Your task to perform on an android device: Go to sound settings Image 0: 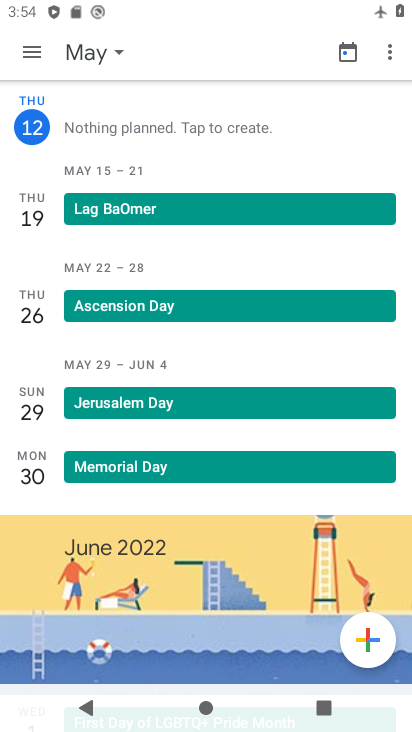
Step 0: press home button
Your task to perform on an android device: Go to sound settings Image 1: 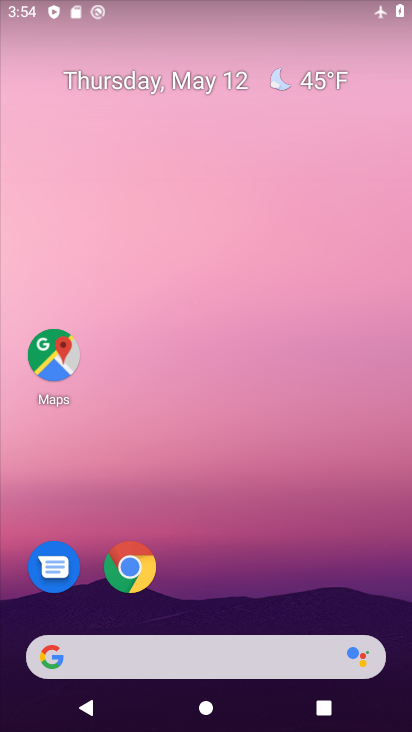
Step 1: drag from (206, 580) to (263, 77)
Your task to perform on an android device: Go to sound settings Image 2: 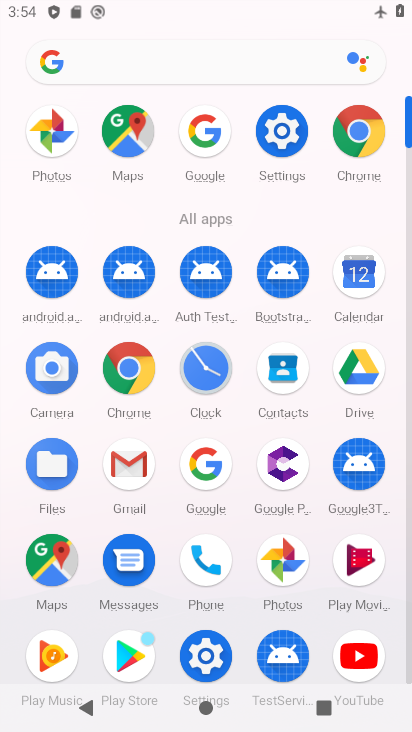
Step 2: click (260, 122)
Your task to perform on an android device: Go to sound settings Image 3: 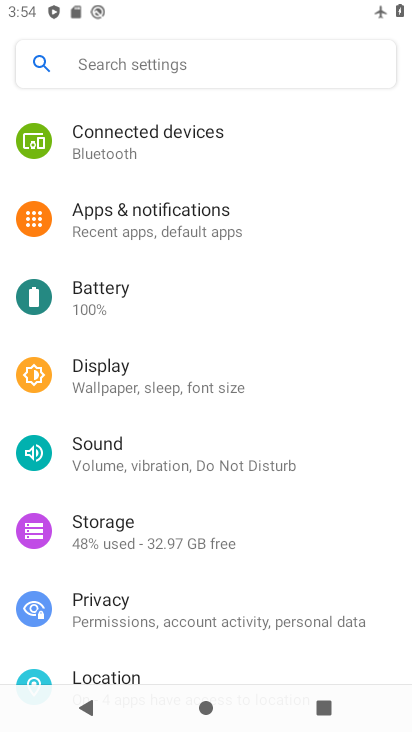
Step 3: click (140, 443)
Your task to perform on an android device: Go to sound settings Image 4: 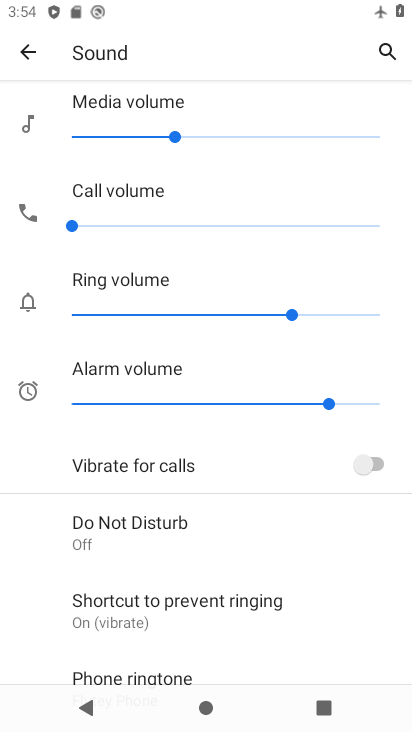
Step 4: task complete